Your task to perform on an android device: turn off notifications in google photos Image 0: 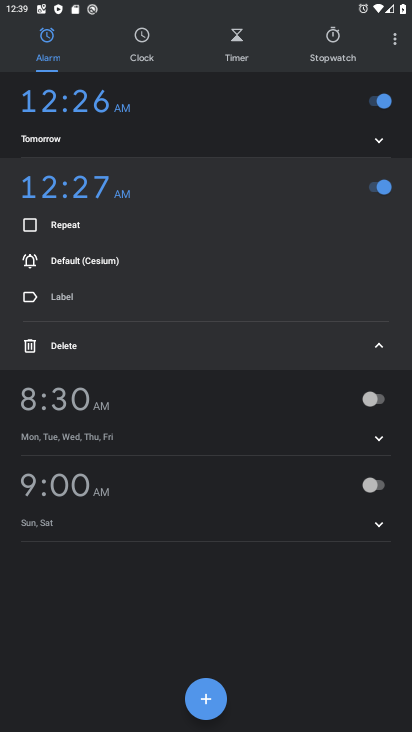
Step 0: press home button
Your task to perform on an android device: turn off notifications in google photos Image 1: 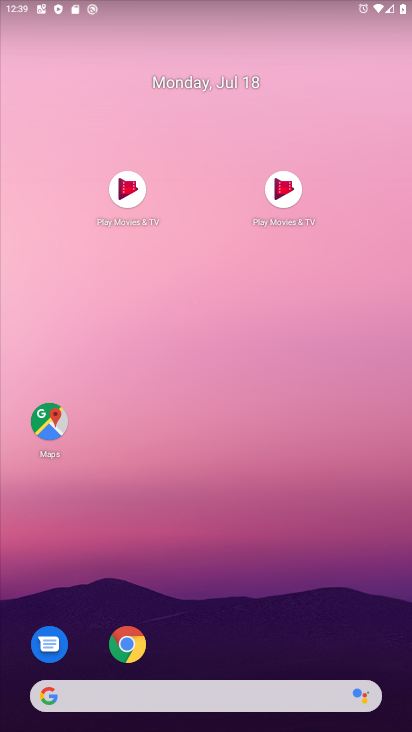
Step 1: drag from (352, 628) to (336, 205)
Your task to perform on an android device: turn off notifications in google photos Image 2: 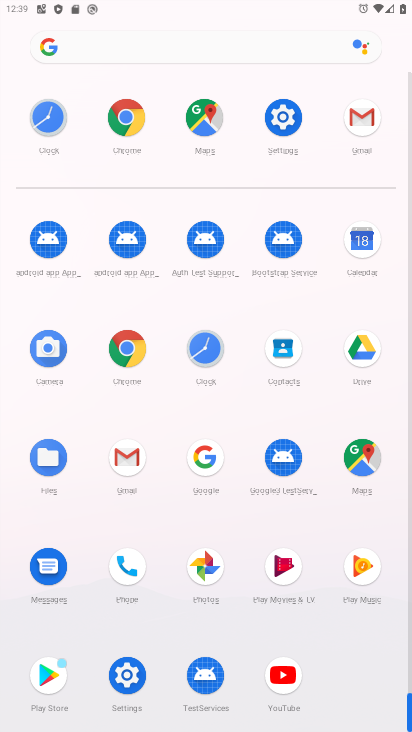
Step 2: click (213, 574)
Your task to perform on an android device: turn off notifications in google photos Image 3: 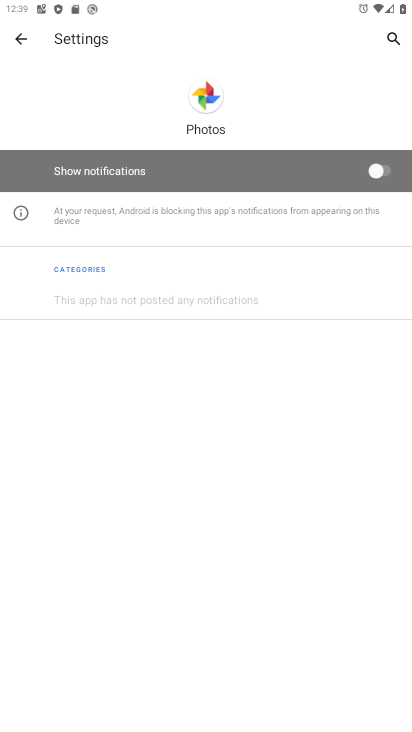
Step 3: click (28, 53)
Your task to perform on an android device: turn off notifications in google photos Image 4: 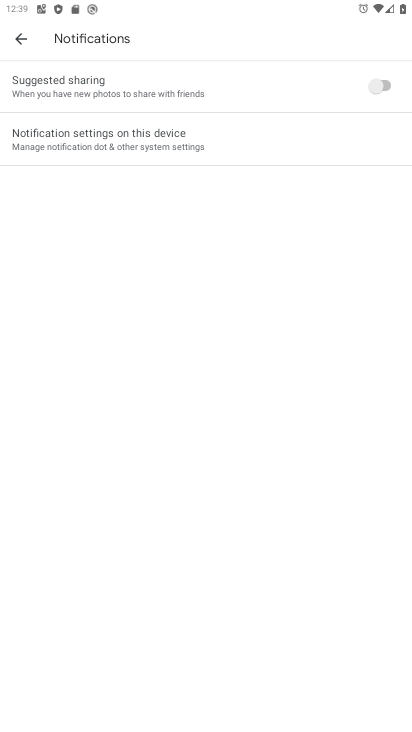
Step 4: click (24, 40)
Your task to perform on an android device: turn off notifications in google photos Image 5: 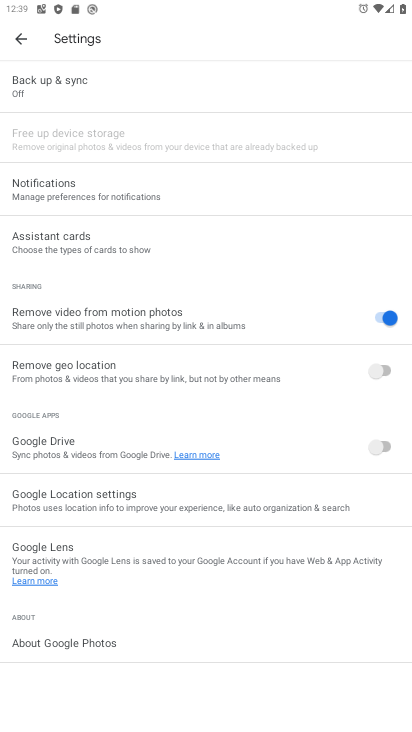
Step 5: click (138, 192)
Your task to perform on an android device: turn off notifications in google photos Image 6: 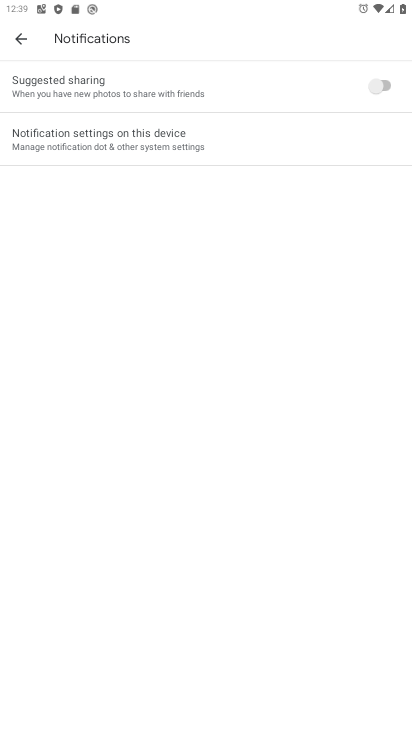
Step 6: click (307, 154)
Your task to perform on an android device: turn off notifications in google photos Image 7: 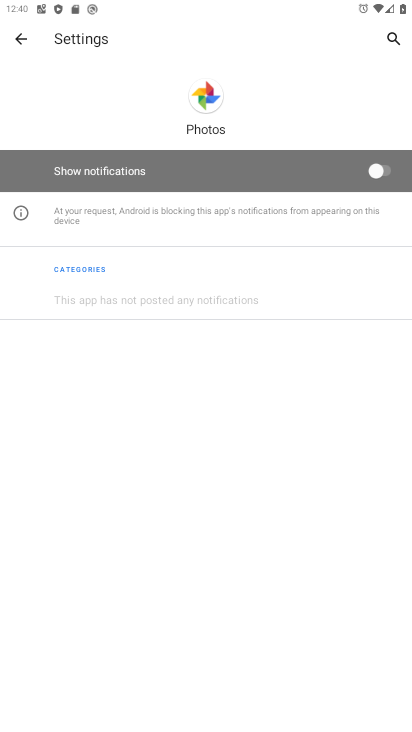
Step 7: task complete